Your task to perform on an android device: check the backup settings in the google photos Image 0: 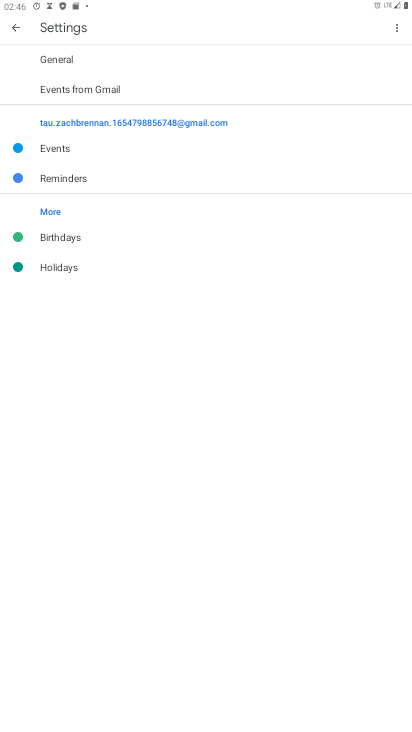
Step 0: press home button
Your task to perform on an android device: check the backup settings in the google photos Image 1: 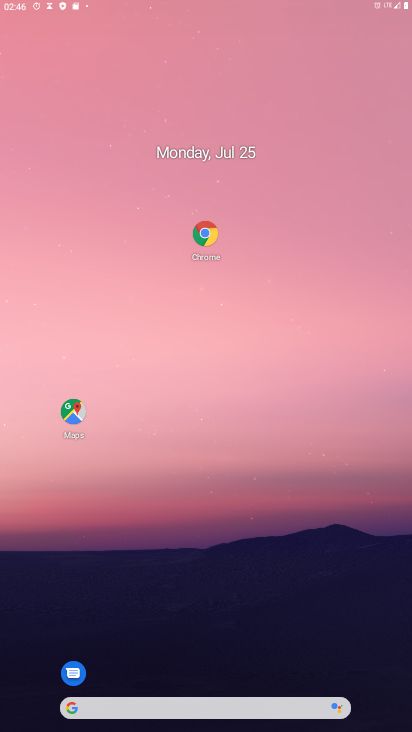
Step 1: drag from (228, 705) to (312, 25)
Your task to perform on an android device: check the backup settings in the google photos Image 2: 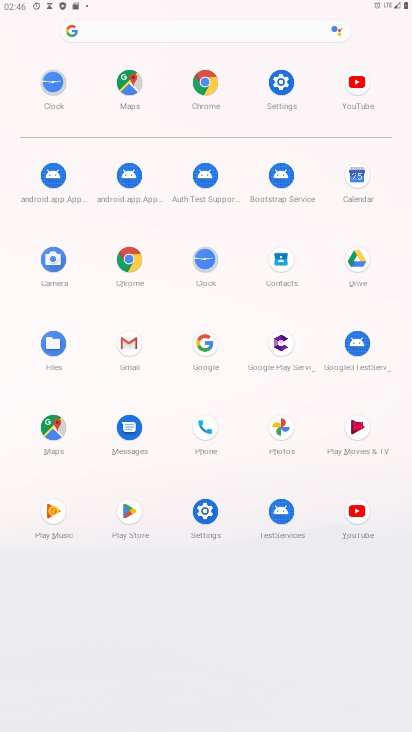
Step 2: click (277, 425)
Your task to perform on an android device: check the backup settings in the google photos Image 3: 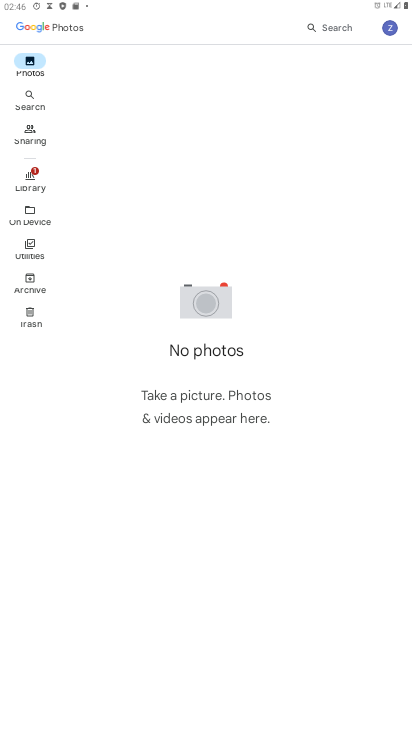
Step 3: click (390, 29)
Your task to perform on an android device: check the backup settings in the google photos Image 4: 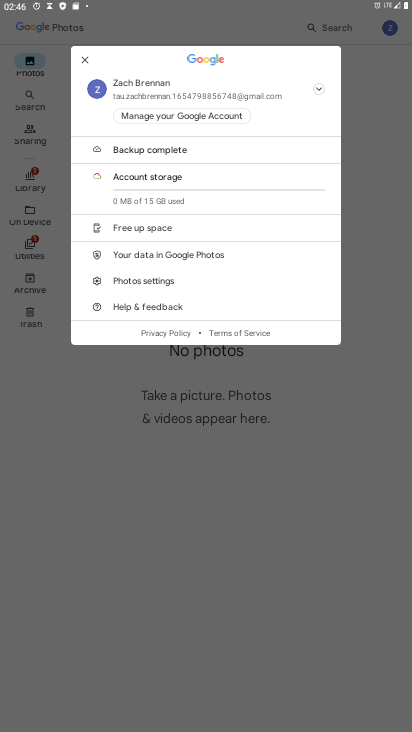
Step 4: click (160, 284)
Your task to perform on an android device: check the backup settings in the google photos Image 5: 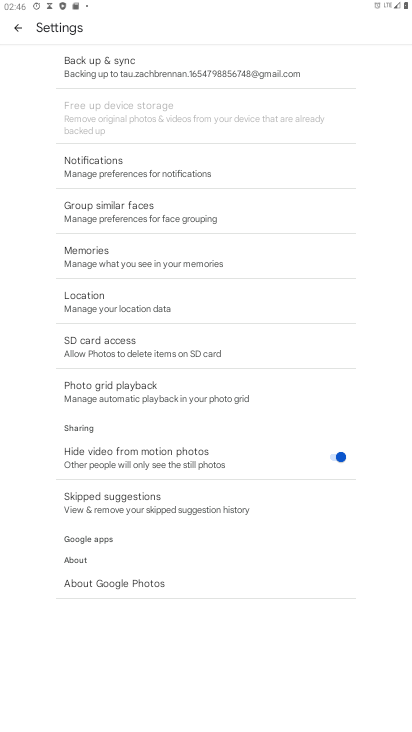
Step 5: click (133, 80)
Your task to perform on an android device: check the backup settings in the google photos Image 6: 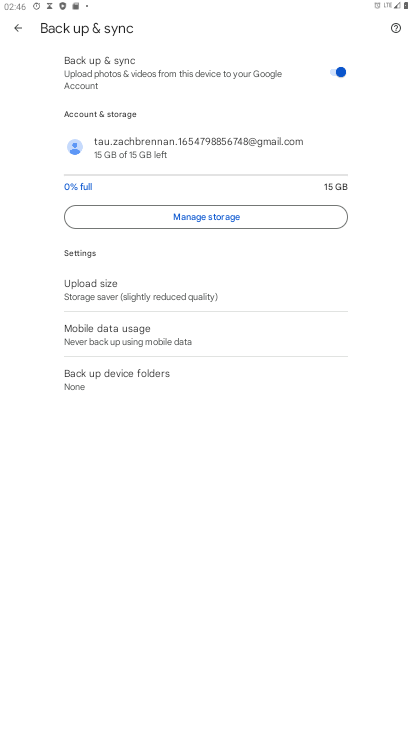
Step 6: task complete